Your task to perform on an android device: When is my next appointment? Image 0: 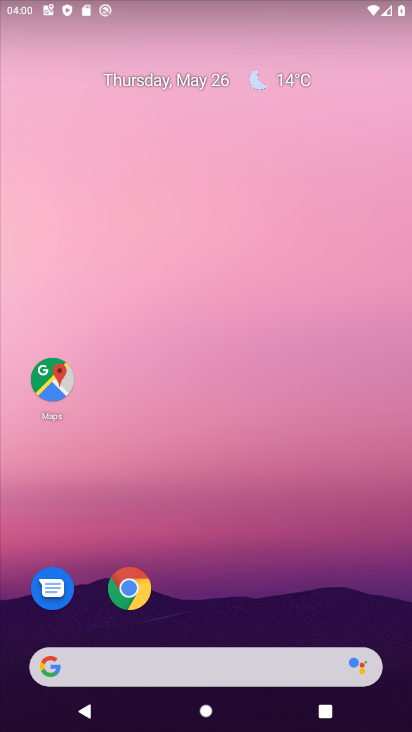
Step 0: drag from (261, 591) to (219, 147)
Your task to perform on an android device: When is my next appointment? Image 1: 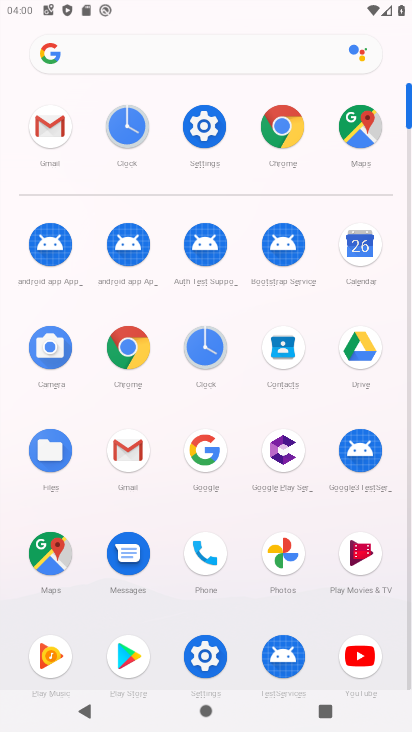
Step 1: click (361, 234)
Your task to perform on an android device: When is my next appointment? Image 2: 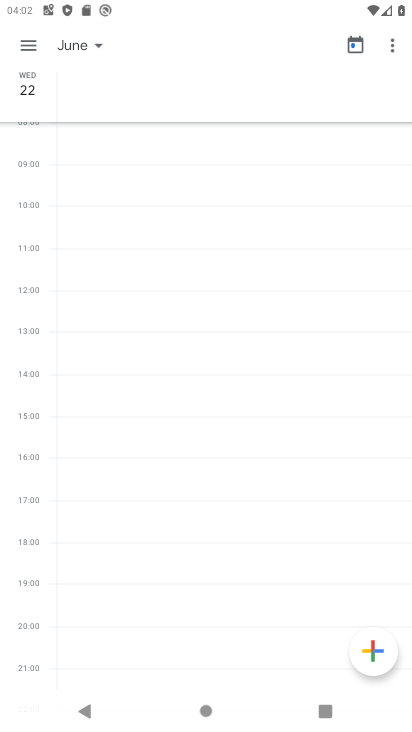
Step 2: task complete